Your task to perform on an android device: add a contact in the contacts app Image 0: 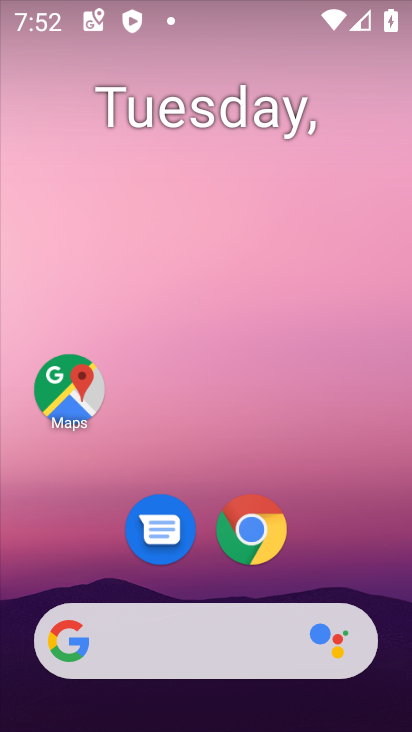
Step 0: drag from (244, 405) to (242, 149)
Your task to perform on an android device: add a contact in the contacts app Image 1: 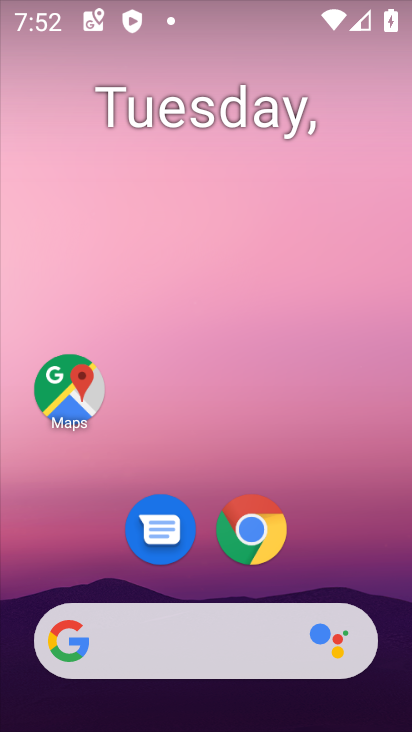
Step 1: drag from (200, 653) to (220, 70)
Your task to perform on an android device: add a contact in the contacts app Image 2: 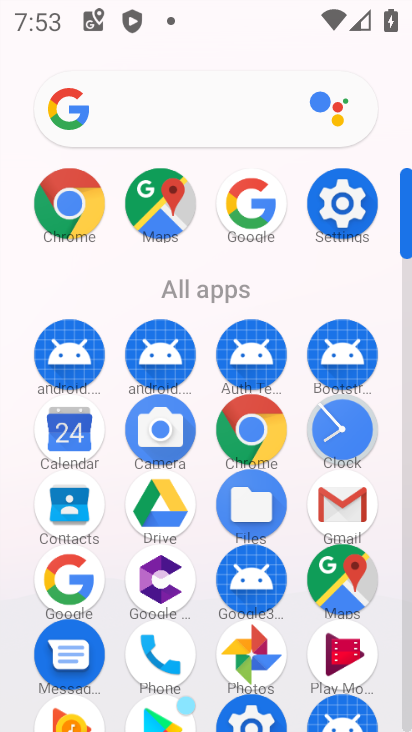
Step 2: drag from (235, 479) to (254, 155)
Your task to perform on an android device: add a contact in the contacts app Image 3: 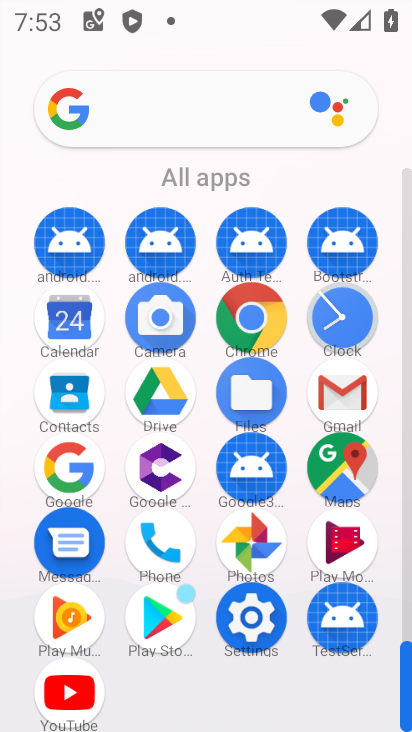
Step 3: click (84, 406)
Your task to perform on an android device: add a contact in the contacts app Image 4: 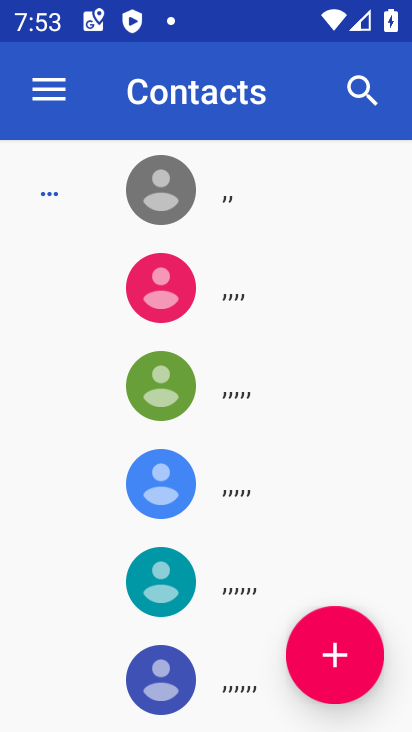
Step 4: click (348, 674)
Your task to perform on an android device: add a contact in the contacts app Image 5: 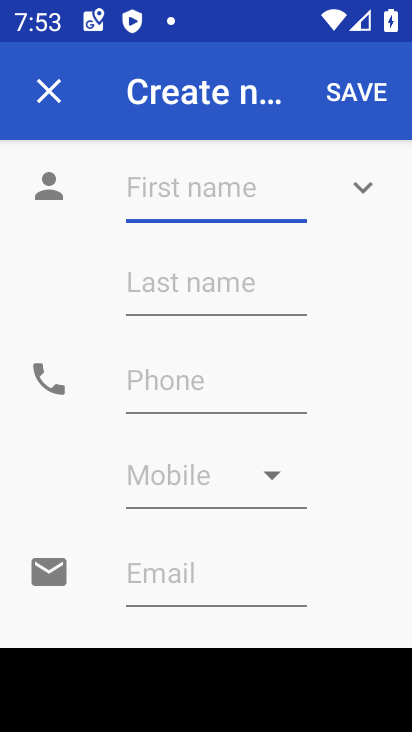
Step 5: type "jyggufug"
Your task to perform on an android device: add a contact in the contacts app Image 6: 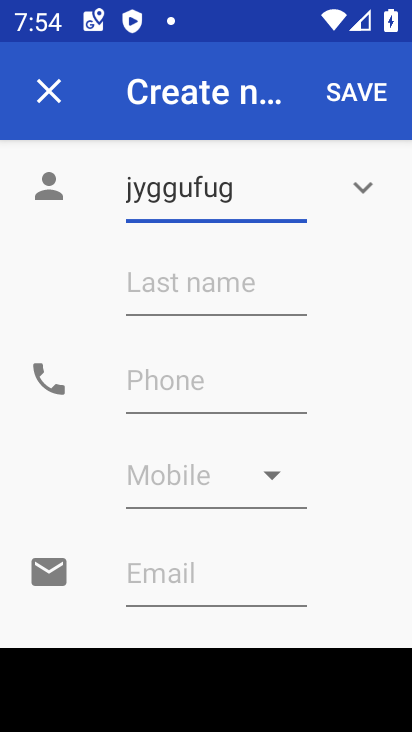
Step 6: click (224, 384)
Your task to perform on an android device: add a contact in the contacts app Image 7: 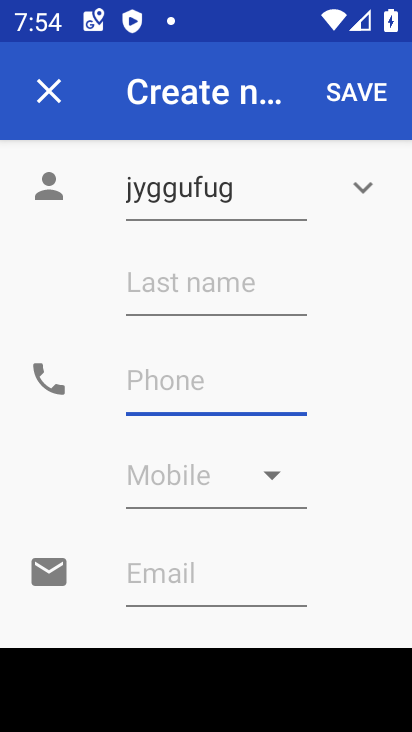
Step 7: type "97757776"
Your task to perform on an android device: add a contact in the contacts app Image 8: 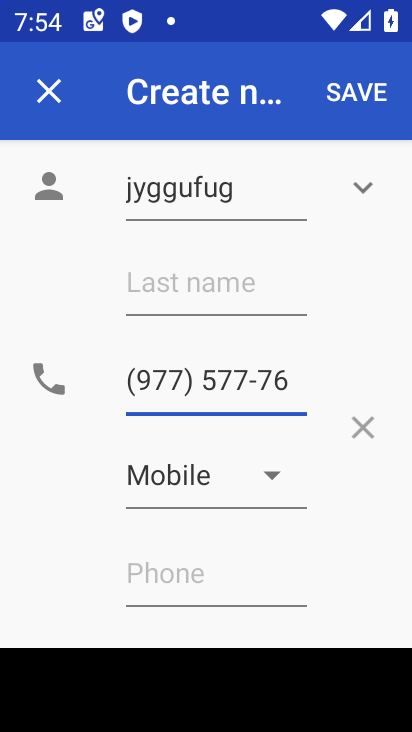
Step 8: click (380, 97)
Your task to perform on an android device: add a contact in the contacts app Image 9: 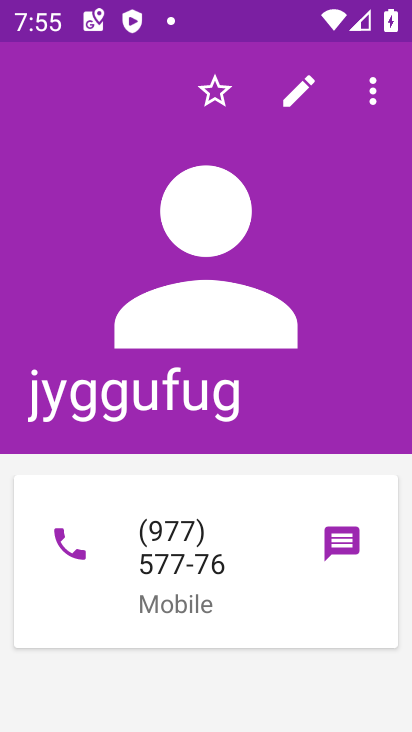
Step 9: task complete